Your task to perform on an android device: Show me popular games on the Play Store Image 0: 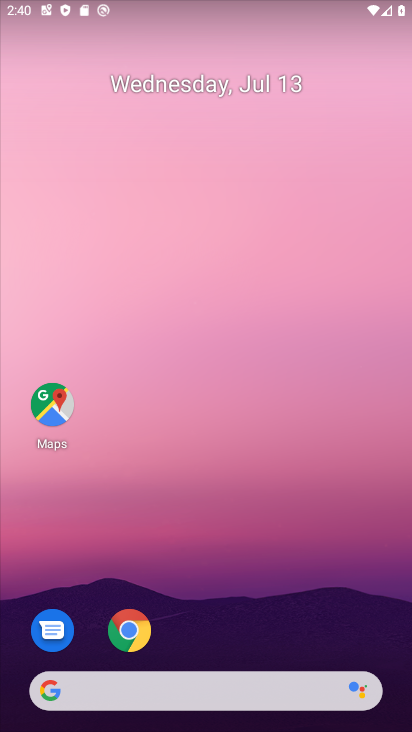
Step 0: drag from (254, 636) to (155, 192)
Your task to perform on an android device: Show me popular games on the Play Store Image 1: 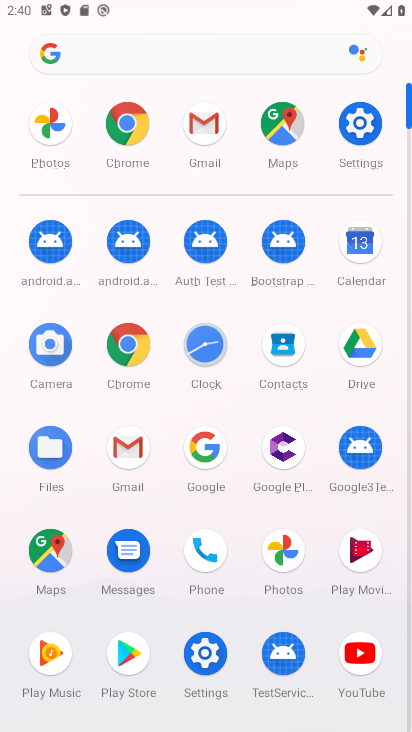
Step 1: click (131, 649)
Your task to perform on an android device: Show me popular games on the Play Store Image 2: 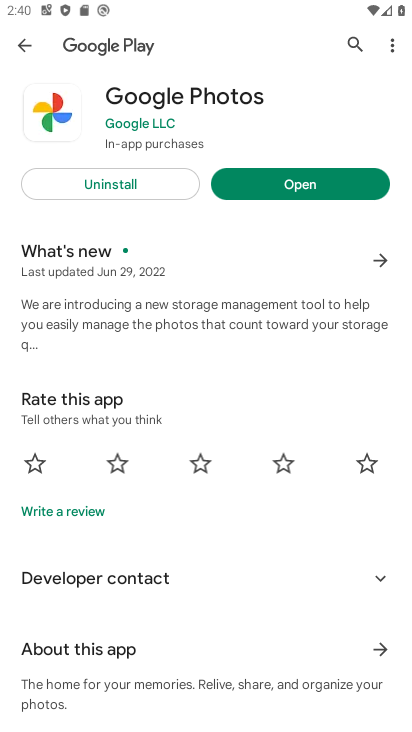
Step 2: click (34, 45)
Your task to perform on an android device: Show me popular games on the Play Store Image 3: 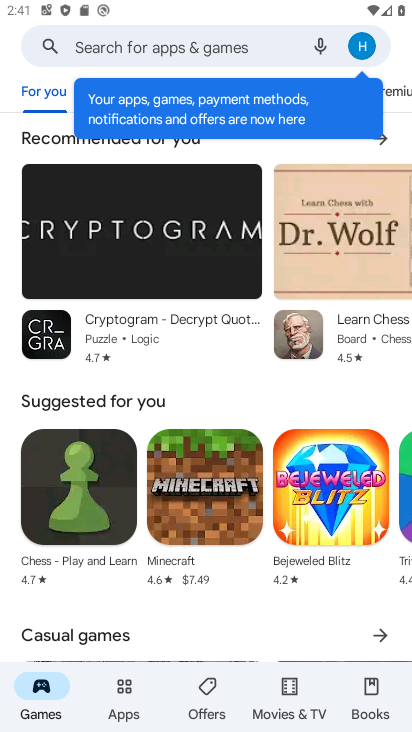
Step 3: task complete